Your task to perform on an android device: When is my next meeting? Image 0: 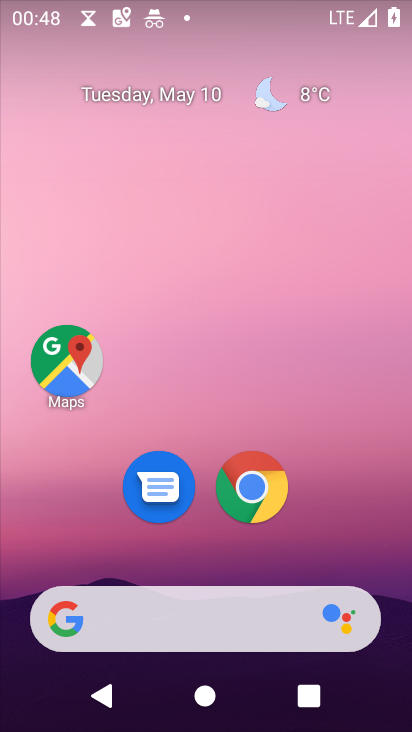
Step 0: drag from (219, 515) to (219, 77)
Your task to perform on an android device: When is my next meeting? Image 1: 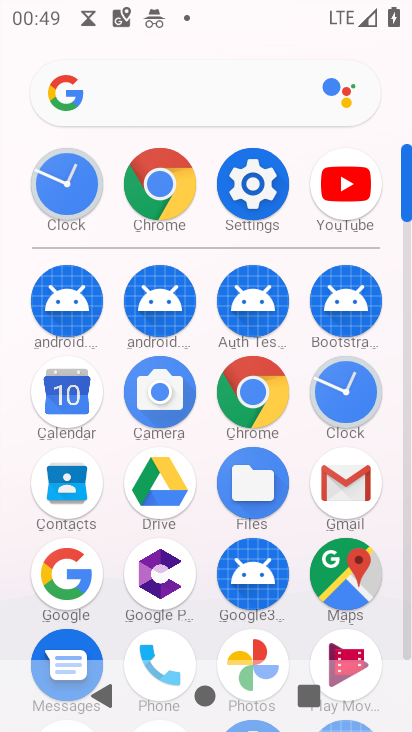
Step 1: click (65, 396)
Your task to perform on an android device: When is my next meeting? Image 2: 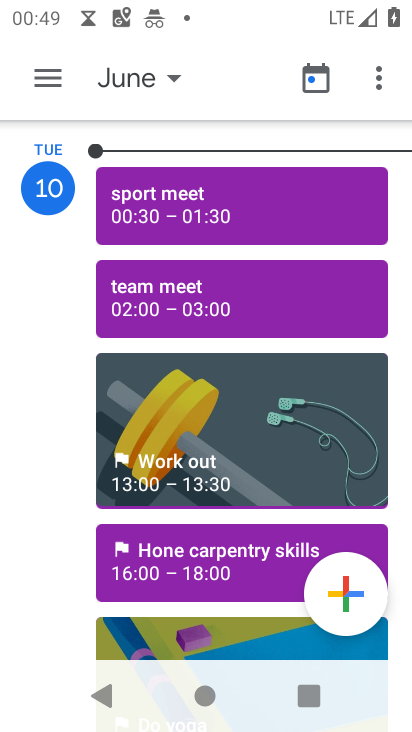
Step 2: task complete